Your task to perform on an android device: What is the news today? Image 0: 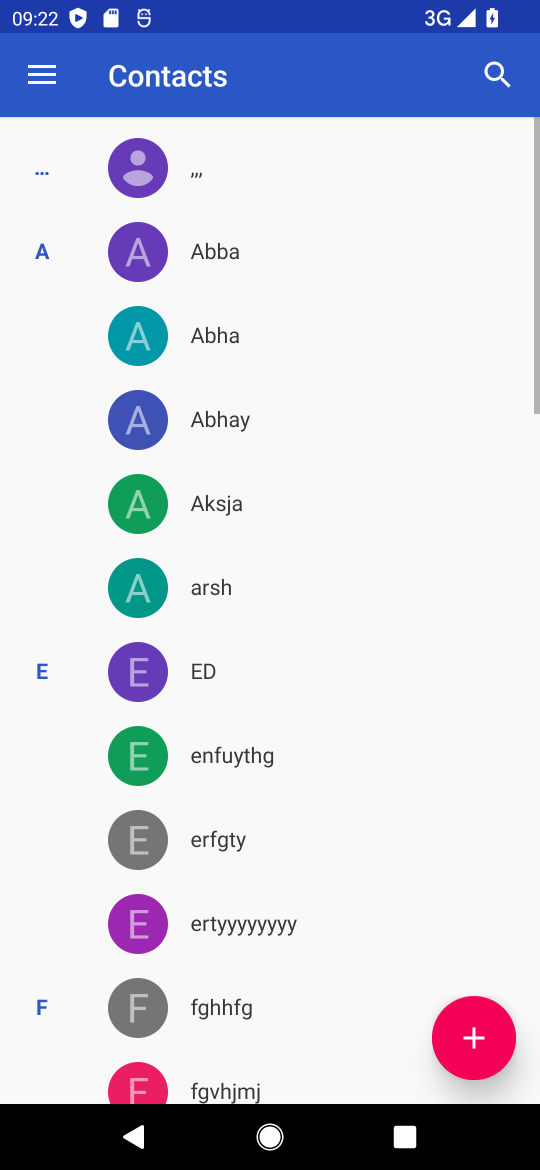
Step 0: press home button
Your task to perform on an android device: What is the news today? Image 1: 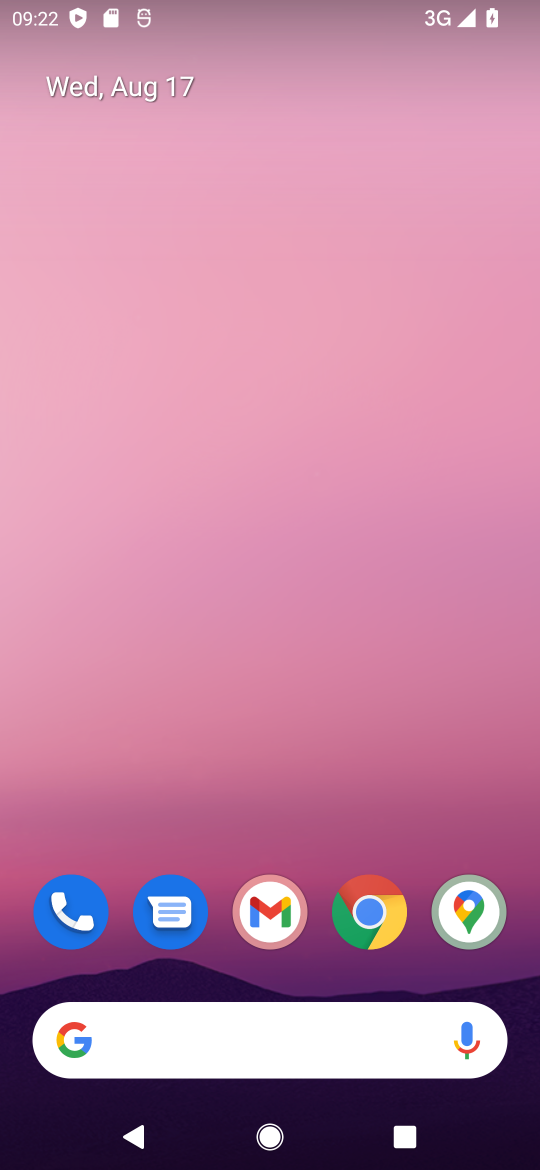
Step 1: drag from (221, 874) to (259, 458)
Your task to perform on an android device: What is the news today? Image 2: 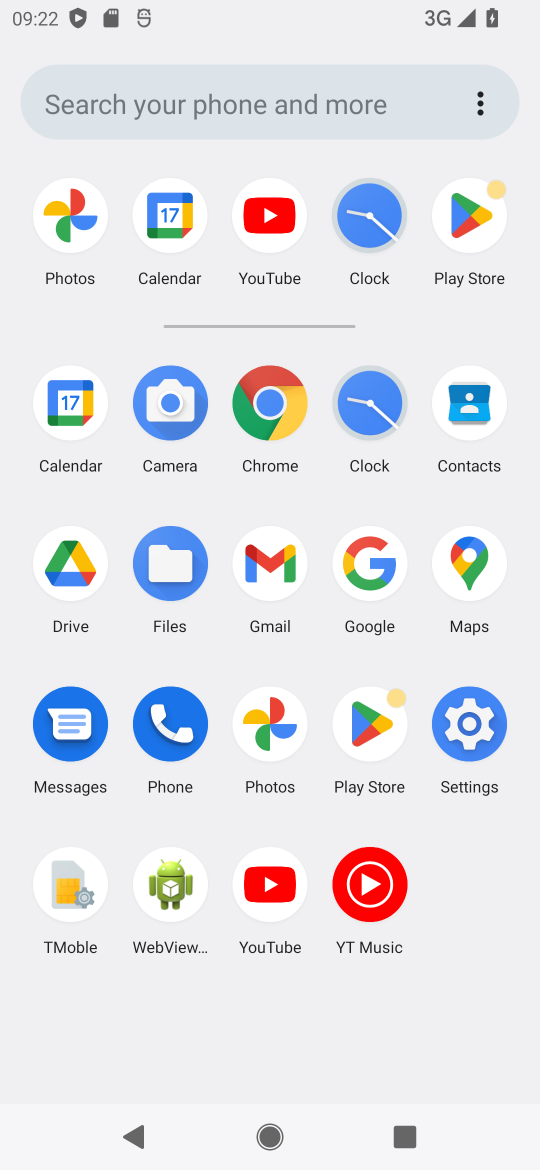
Step 2: click (358, 569)
Your task to perform on an android device: What is the news today? Image 3: 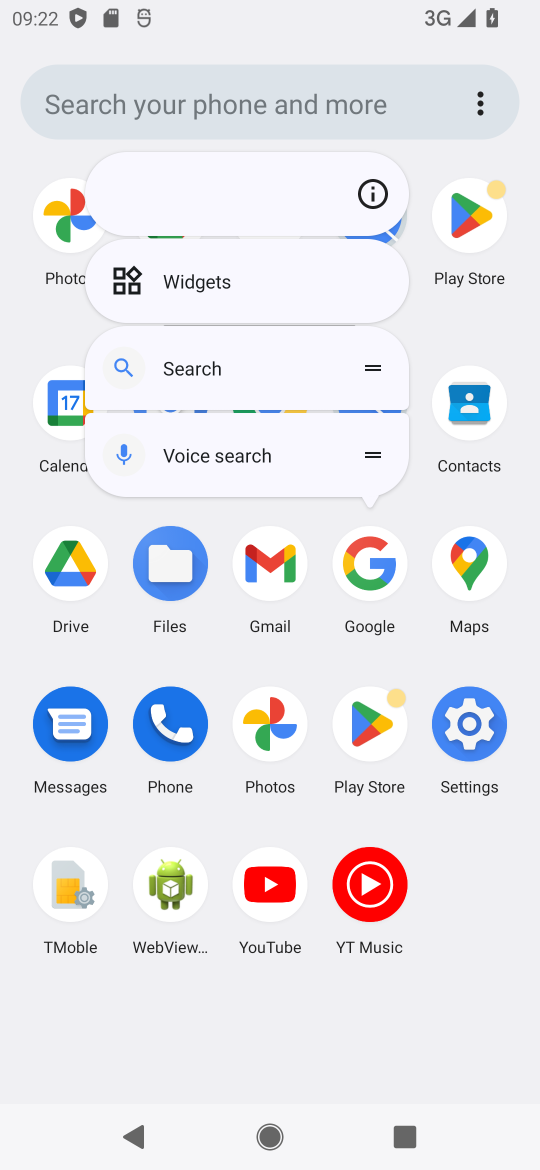
Step 3: click (359, 570)
Your task to perform on an android device: What is the news today? Image 4: 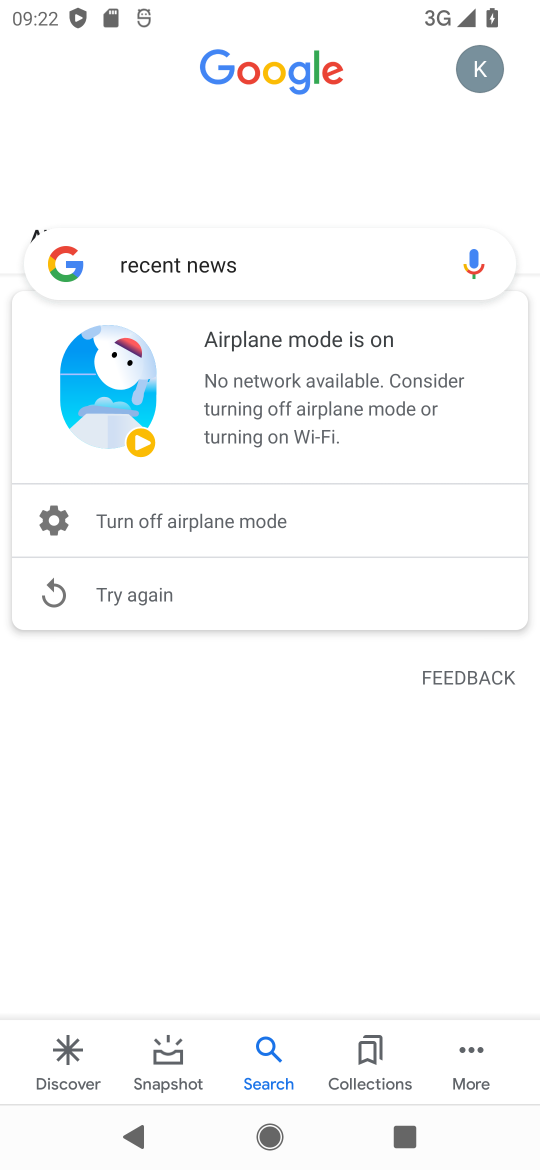
Step 4: click (241, 259)
Your task to perform on an android device: What is the news today? Image 5: 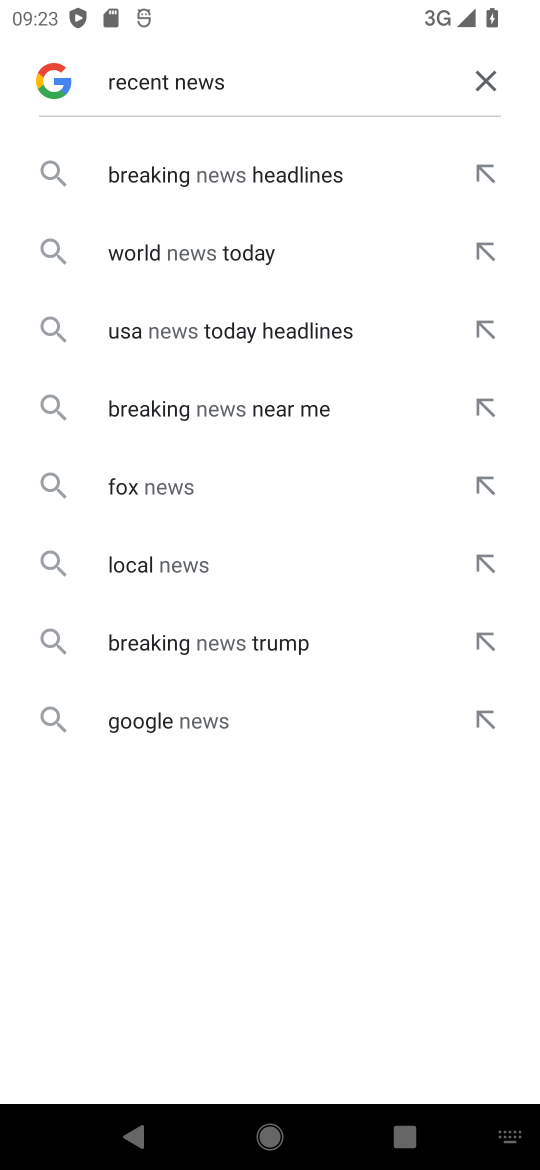
Step 5: click (215, 263)
Your task to perform on an android device: What is the news today? Image 6: 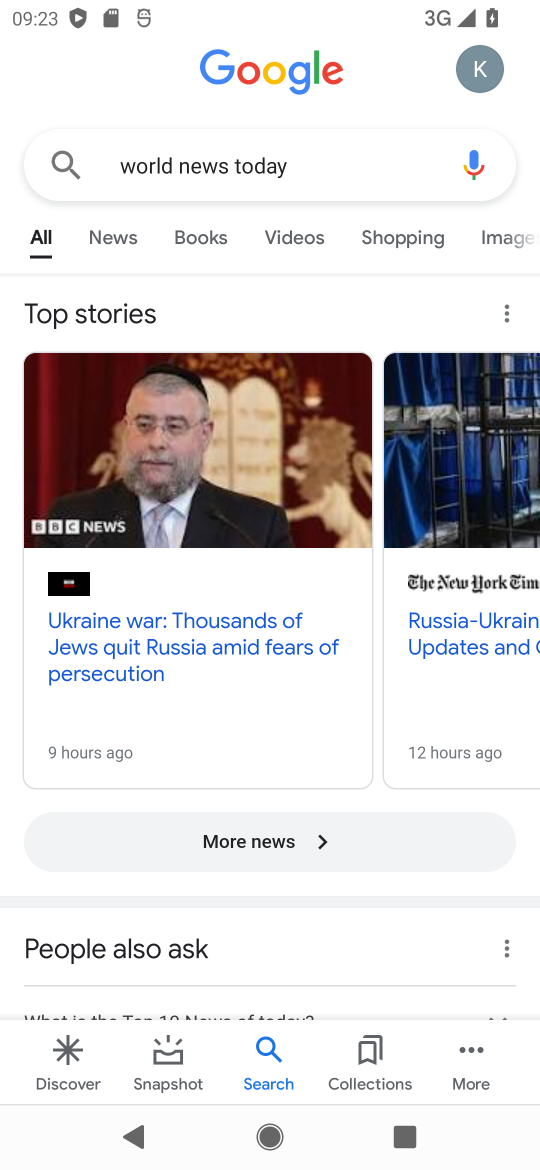
Step 6: task complete